Your task to perform on an android device: toggle translation in the chrome app Image 0: 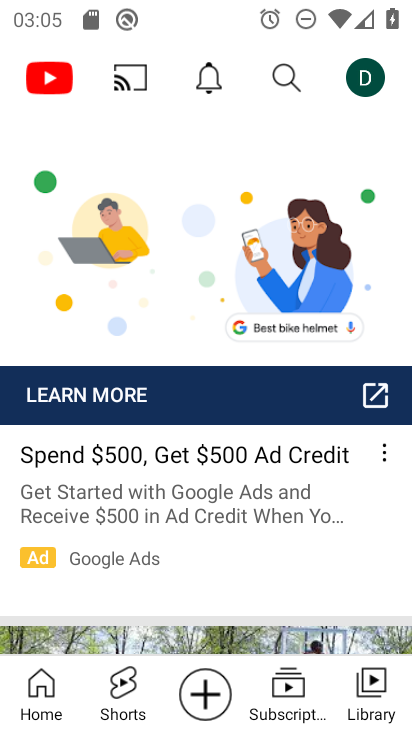
Step 0: press home button
Your task to perform on an android device: toggle translation in the chrome app Image 1: 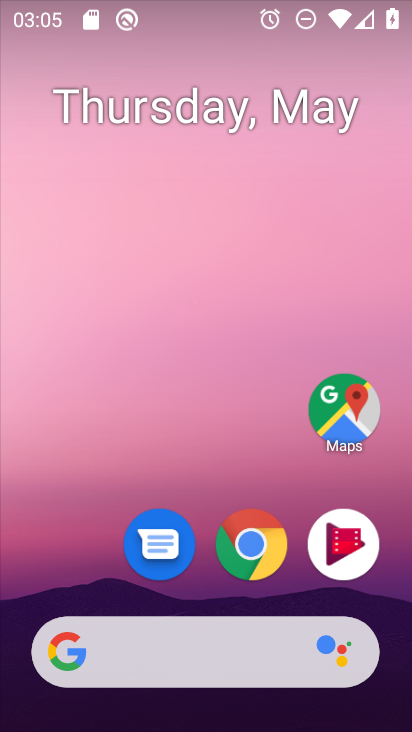
Step 1: drag from (62, 559) to (62, 107)
Your task to perform on an android device: toggle translation in the chrome app Image 2: 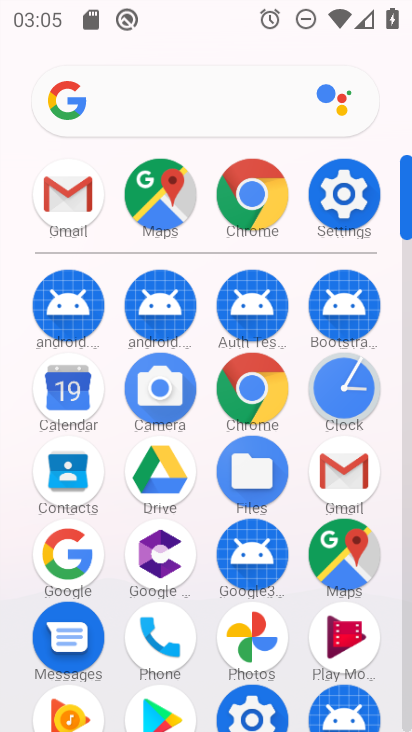
Step 2: click (256, 373)
Your task to perform on an android device: toggle translation in the chrome app Image 3: 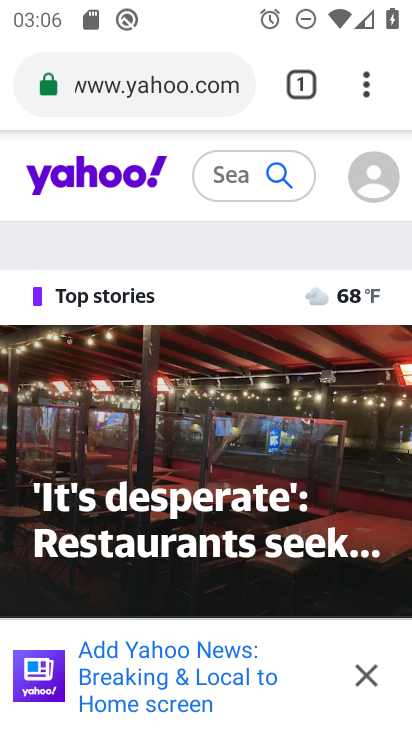
Step 3: click (365, 93)
Your task to perform on an android device: toggle translation in the chrome app Image 4: 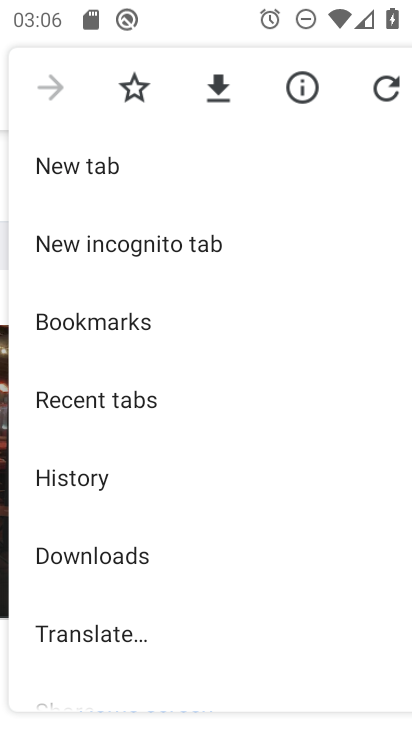
Step 4: drag from (342, 605) to (339, 432)
Your task to perform on an android device: toggle translation in the chrome app Image 5: 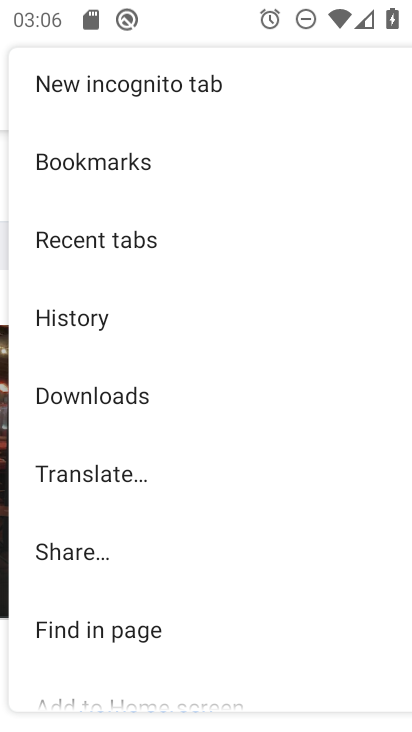
Step 5: drag from (330, 589) to (329, 473)
Your task to perform on an android device: toggle translation in the chrome app Image 6: 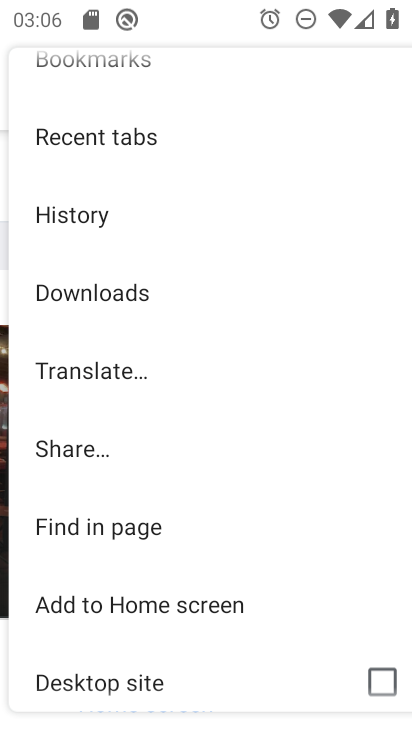
Step 6: drag from (339, 620) to (339, 478)
Your task to perform on an android device: toggle translation in the chrome app Image 7: 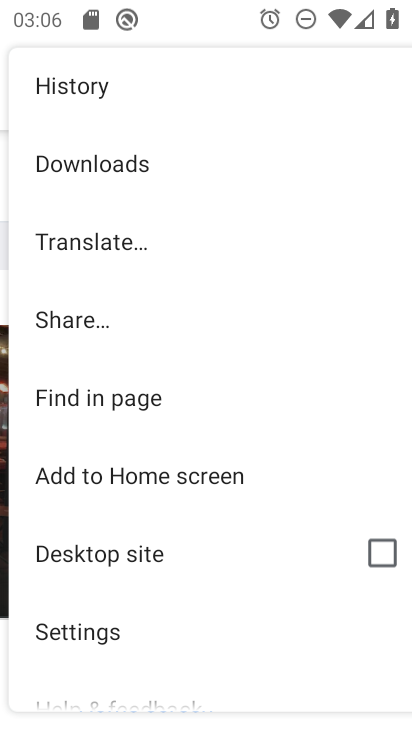
Step 7: drag from (305, 590) to (302, 450)
Your task to perform on an android device: toggle translation in the chrome app Image 8: 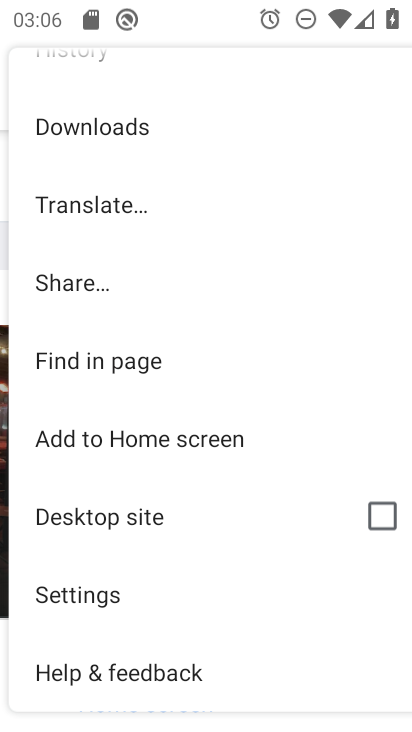
Step 8: drag from (297, 591) to (297, 483)
Your task to perform on an android device: toggle translation in the chrome app Image 9: 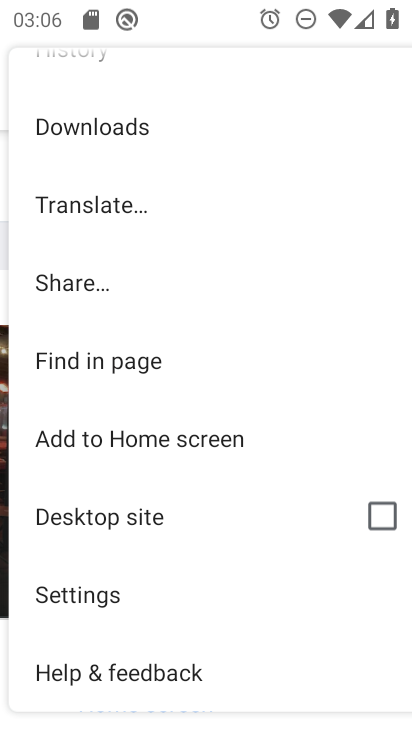
Step 9: click (188, 597)
Your task to perform on an android device: toggle translation in the chrome app Image 10: 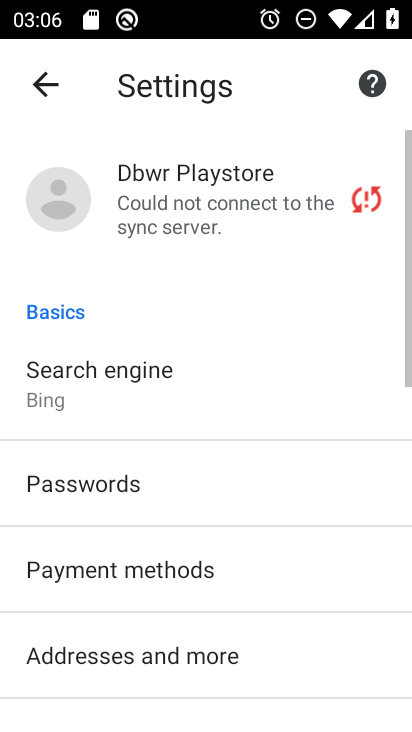
Step 10: drag from (313, 629) to (318, 525)
Your task to perform on an android device: toggle translation in the chrome app Image 11: 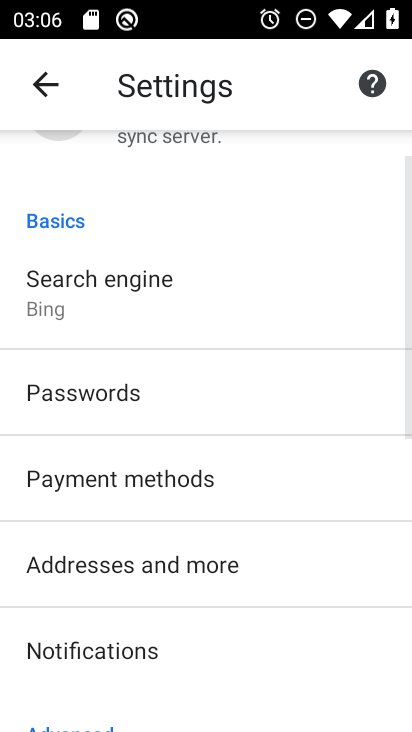
Step 11: drag from (324, 640) to (326, 538)
Your task to perform on an android device: toggle translation in the chrome app Image 12: 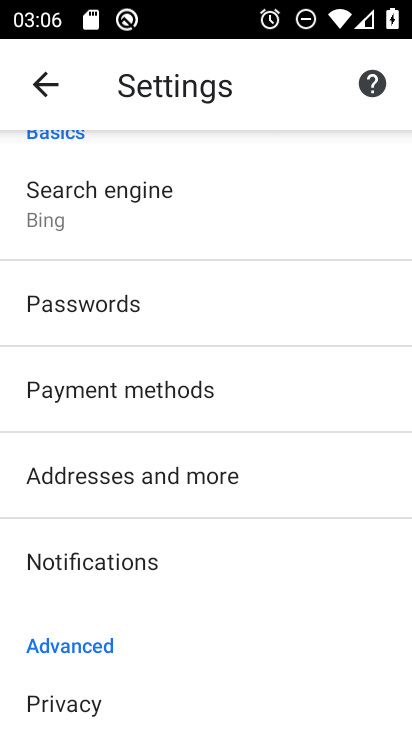
Step 12: drag from (315, 643) to (321, 512)
Your task to perform on an android device: toggle translation in the chrome app Image 13: 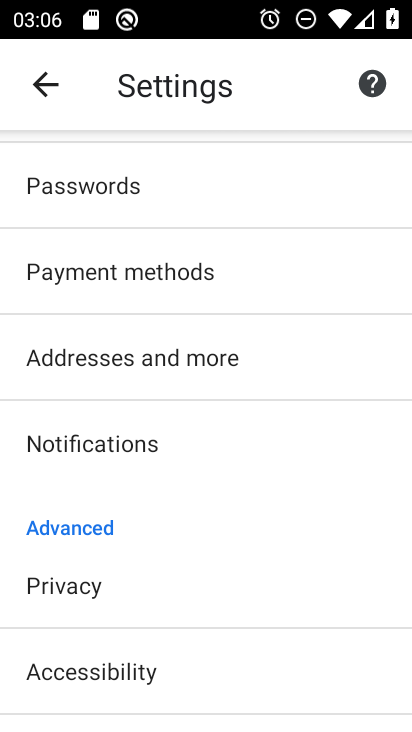
Step 13: drag from (310, 662) to (322, 564)
Your task to perform on an android device: toggle translation in the chrome app Image 14: 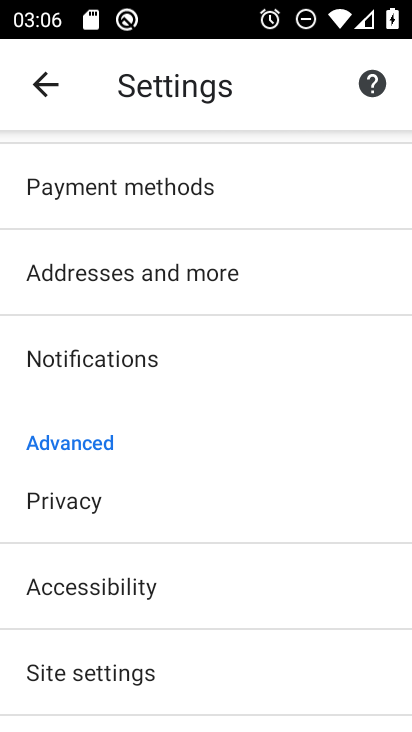
Step 14: drag from (314, 676) to (321, 562)
Your task to perform on an android device: toggle translation in the chrome app Image 15: 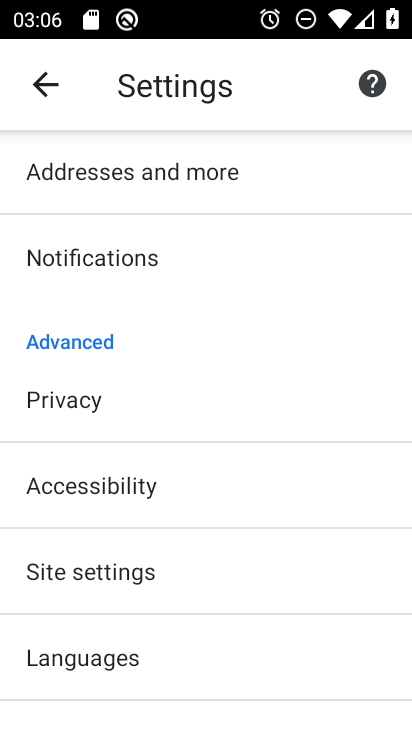
Step 15: drag from (324, 661) to (335, 536)
Your task to perform on an android device: toggle translation in the chrome app Image 16: 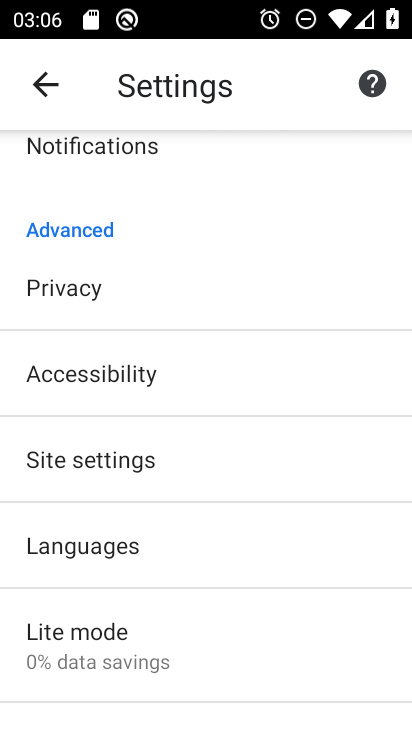
Step 16: click (284, 536)
Your task to perform on an android device: toggle translation in the chrome app Image 17: 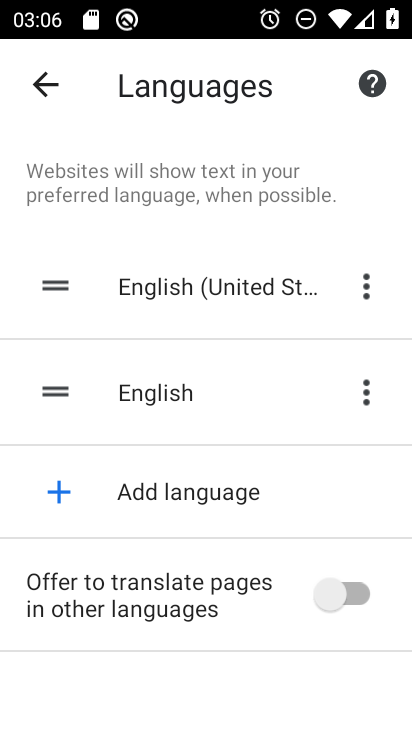
Step 17: click (332, 604)
Your task to perform on an android device: toggle translation in the chrome app Image 18: 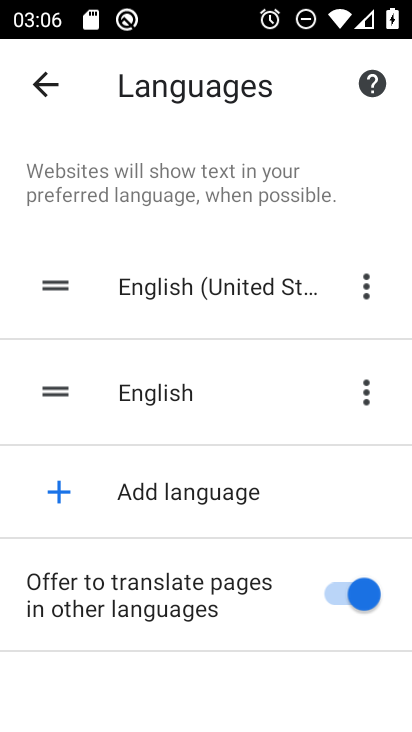
Step 18: task complete